Your task to perform on an android device: show emergency info Image 0: 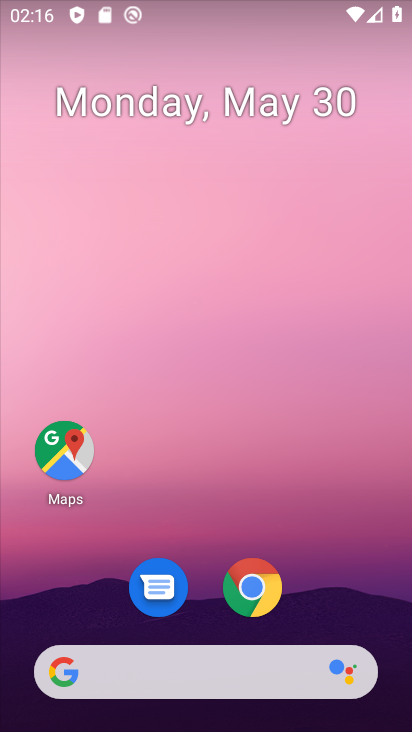
Step 0: drag from (196, 15) to (181, 539)
Your task to perform on an android device: show emergency info Image 1: 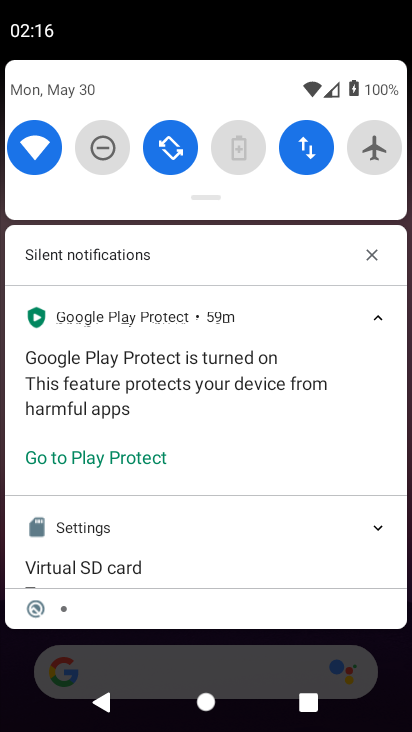
Step 1: drag from (198, 197) to (177, 571)
Your task to perform on an android device: show emergency info Image 2: 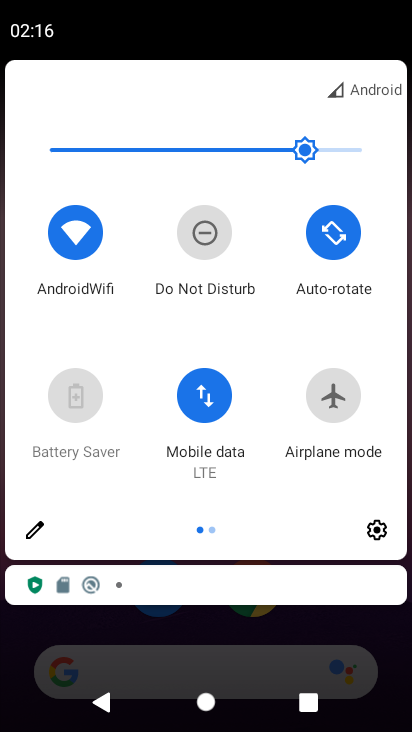
Step 2: click (40, 531)
Your task to perform on an android device: show emergency info Image 3: 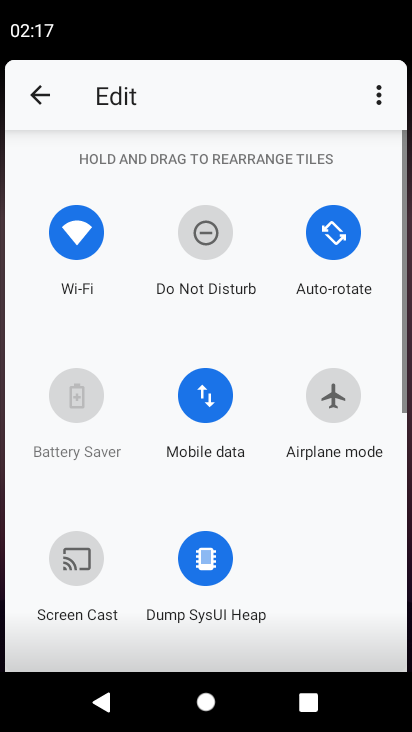
Step 3: task complete